Your task to perform on an android device: Is it going to rain tomorrow? Image 0: 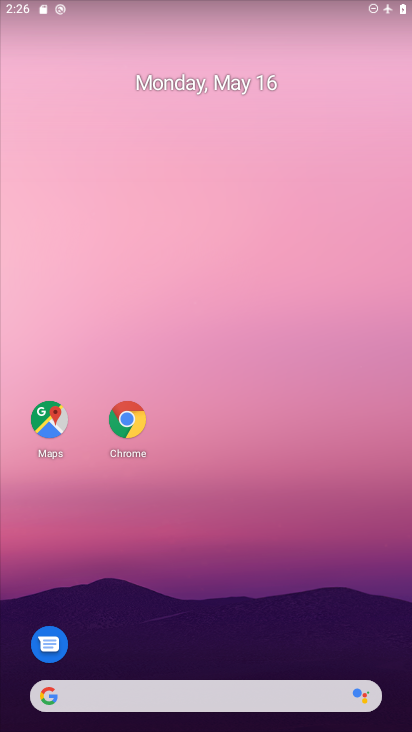
Step 0: drag from (187, 648) to (305, 1)
Your task to perform on an android device: Is it going to rain tomorrow? Image 1: 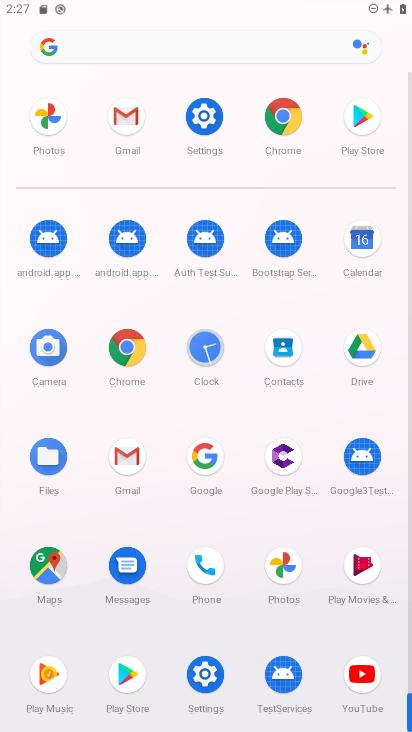
Step 1: click (129, 37)
Your task to perform on an android device: Is it going to rain tomorrow? Image 2: 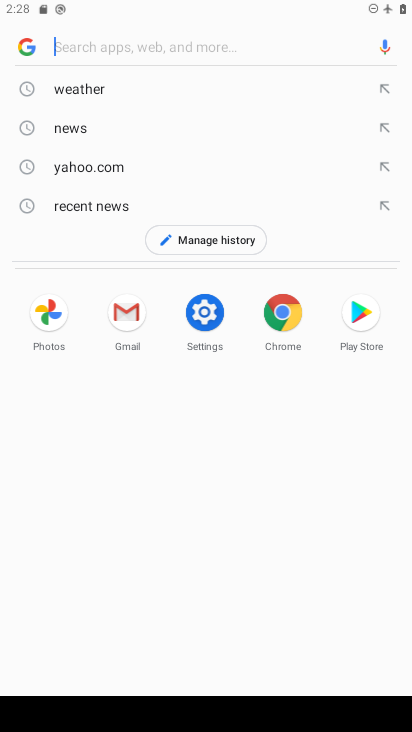
Step 2: type "rain tomorrow"
Your task to perform on an android device: Is it going to rain tomorrow? Image 3: 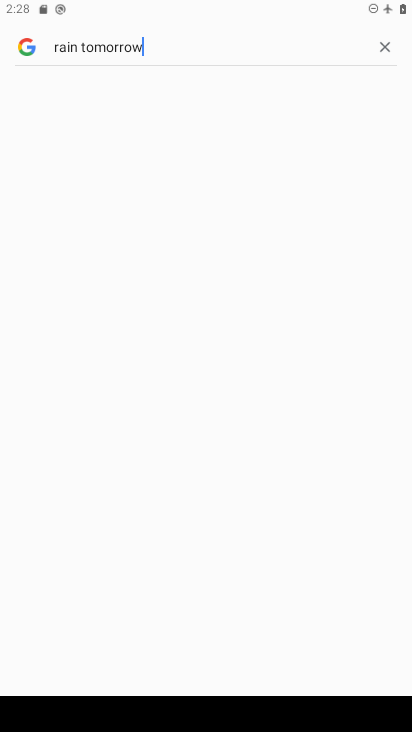
Step 3: click (163, 162)
Your task to perform on an android device: Is it going to rain tomorrow? Image 4: 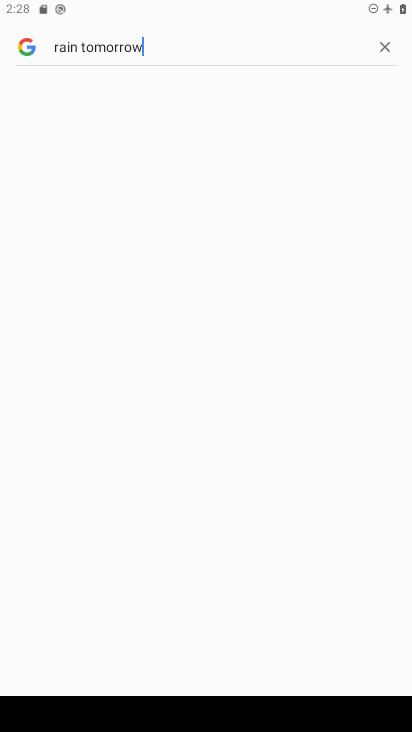
Step 4: task complete